Your task to perform on an android device: Open Youtube and go to the subscriptions tab Image 0: 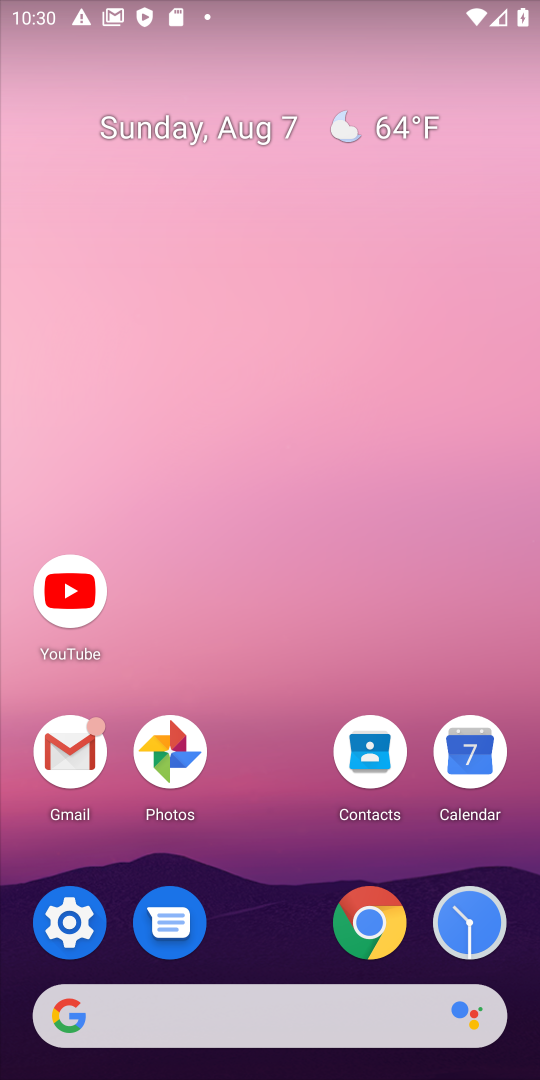
Step 0: click (74, 595)
Your task to perform on an android device: Open Youtube and go to the subscriptions tab Image 1: 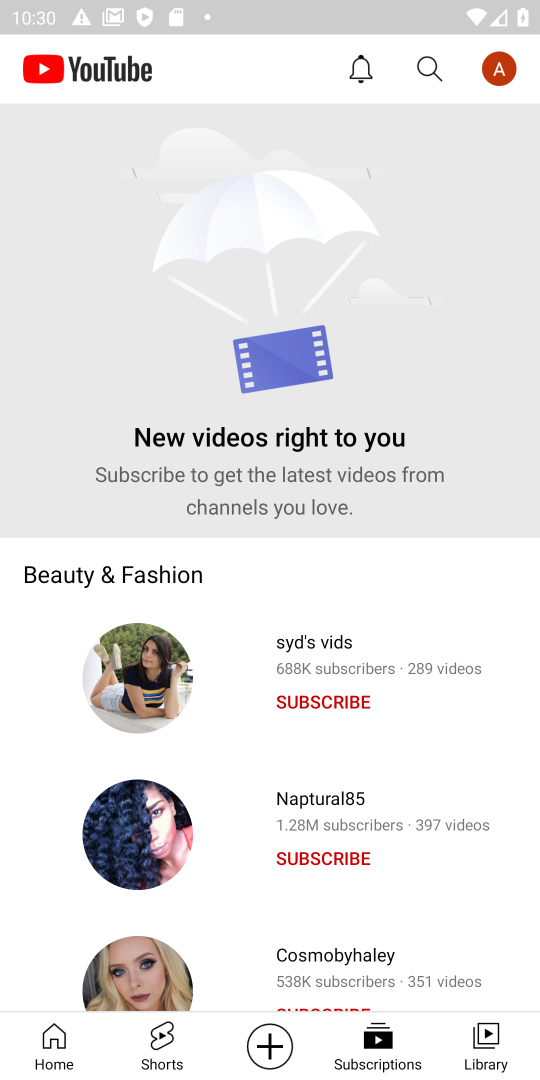
Step 1: click (377, 1032)
Your task to perform on an android device: Open Youtube and go to the subscriptions tab Image 2: 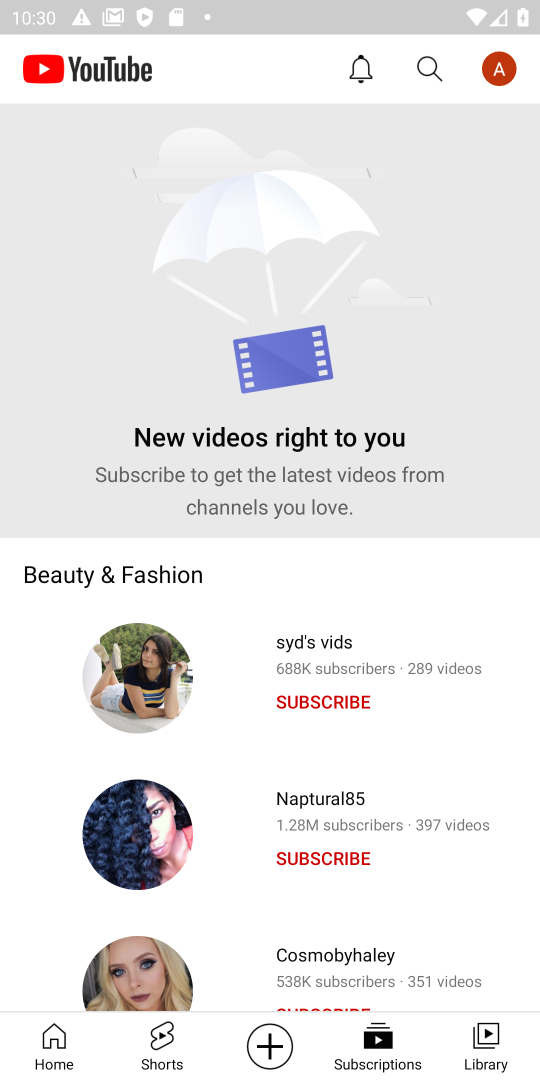
Step 2: task complete